Your task to perform on an android device: Show me productivity apps on the Play Store Image 0: 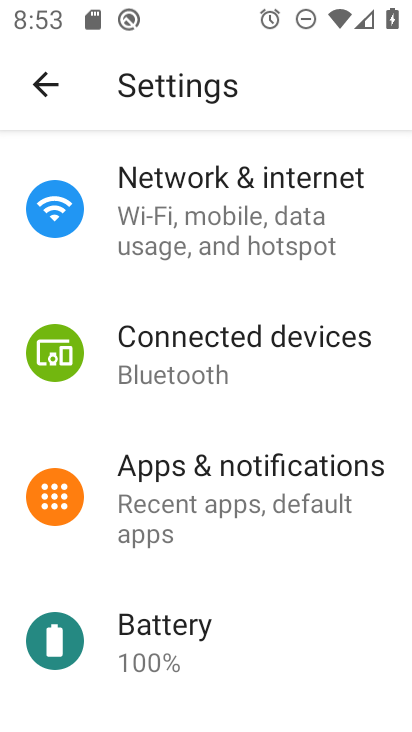
Step 0: press home button
Your task to perform on an android device: Show me productivity apps on the Play Store Image 1: 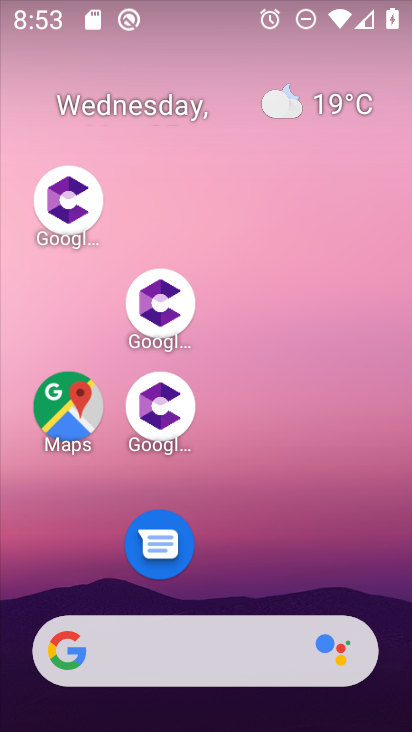
Step 1: drag from (284, 482) to (179, 26)
Your task to perform on an android device: Show me productivity apps on the Play Store Image 2: 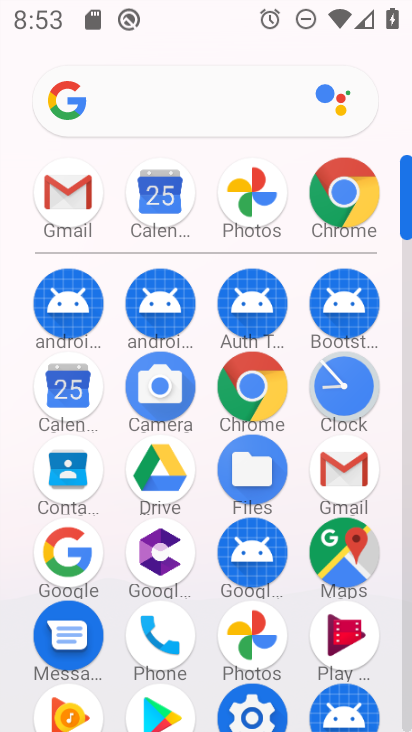
Step 2: drag from (104, 561) to (120, 196)
Your task to perform on an android device: Show me productivity apps on the Play Store Image 3: 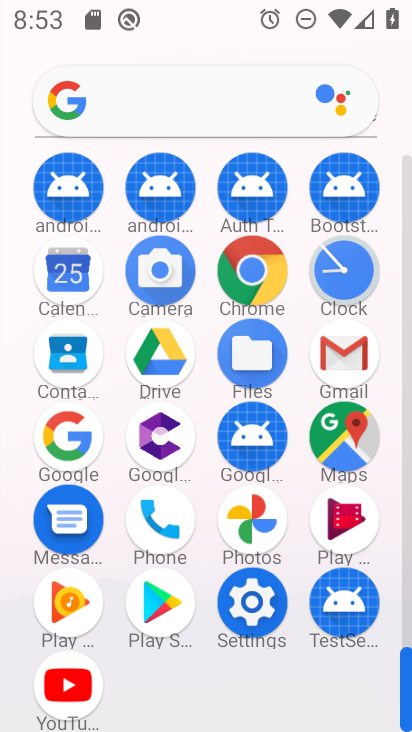
Step 3: click (153, 591)
Your task to perform on an android device: Show me productivity apps on the Play Store Image 4: 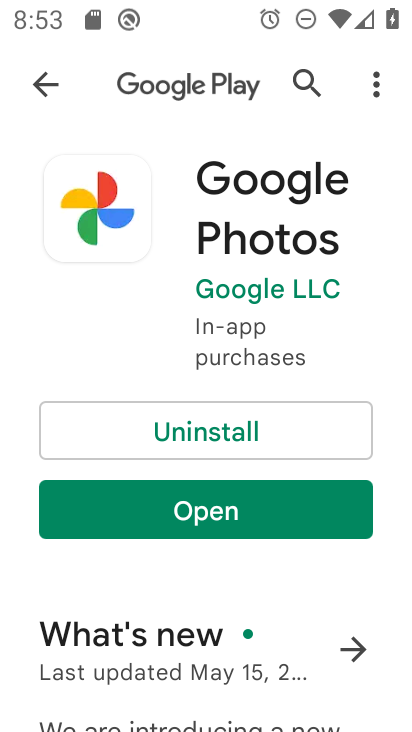
Step 4: click (40, 73)
Your task to perform on an android device: Show me productivity apps on the Play Store Image 5: 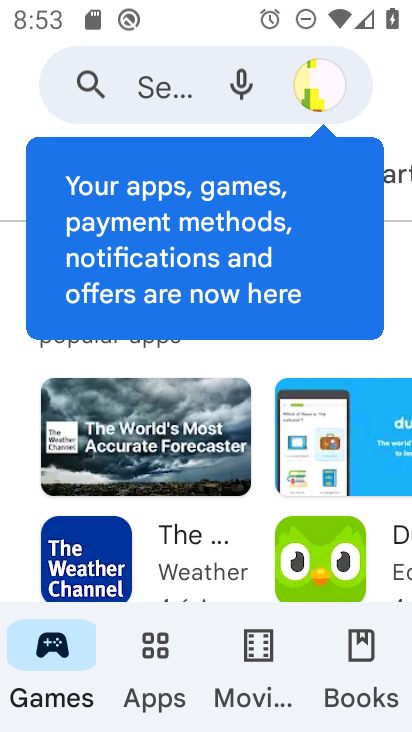
Step 5: click (157, 640)
Your task to perform on an android device: Show me productivity apps on the Play Store Image 6: 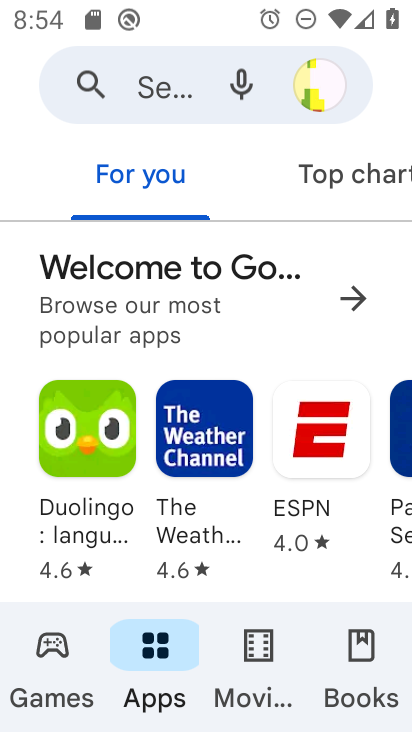
Step 6: task complete